Your task to perform on an android device: manage bookmarks in the chrome app Image 0: 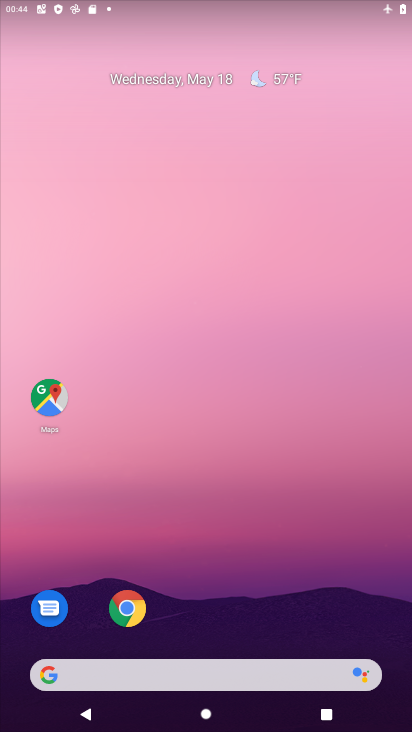
Step 0: click (129, 614)
Your task to perform on an android device: manage bookmarks in the chrome app Image 1: 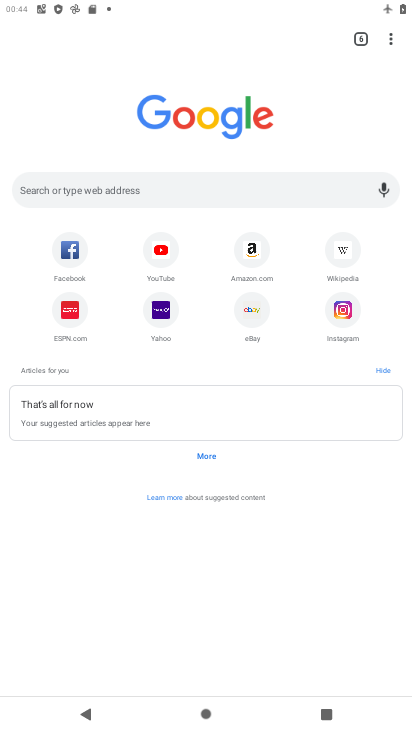
Step 1: click (391, 38)
Your task to perform on an android device: manage bookmarks in the chrome app Image 2: 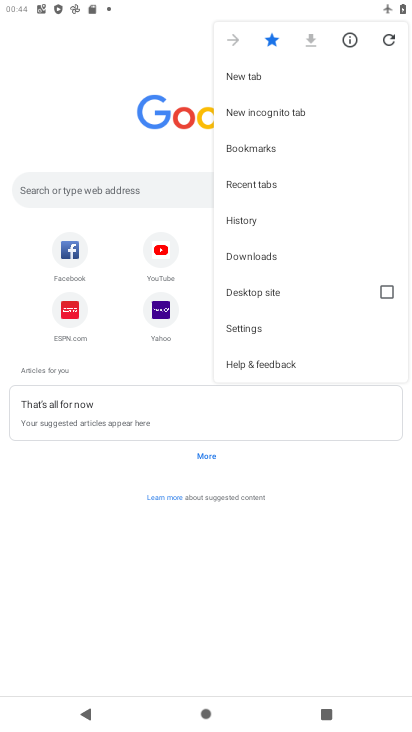
Step 2: click (273, 143)
Your task to perform on an android device: manage bookmarks in the chrome app Image 3: 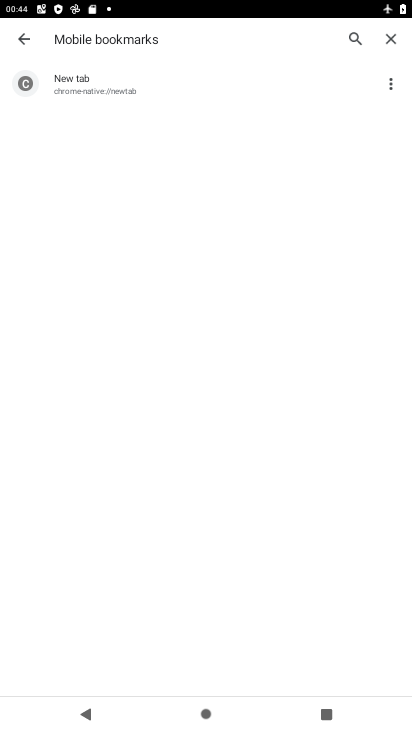
Step 3: click (391, 83)
Your task to perform on an android device: manage bookmarks in the chrome app Image 4: 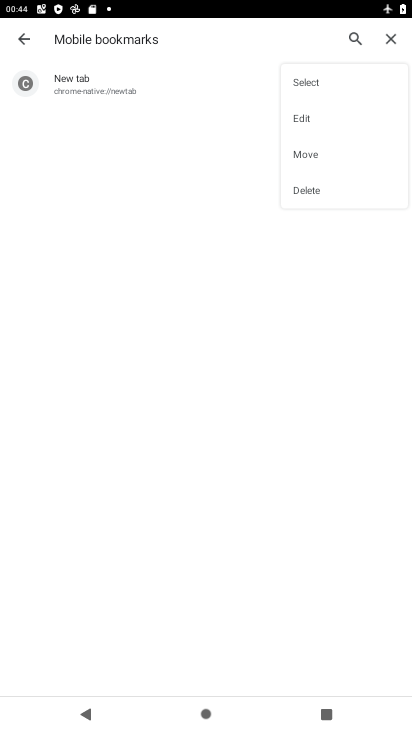
Step 4: click (303, 117)
Your task to perform on an android device: manage bookmarks in the chrome app Image 5: 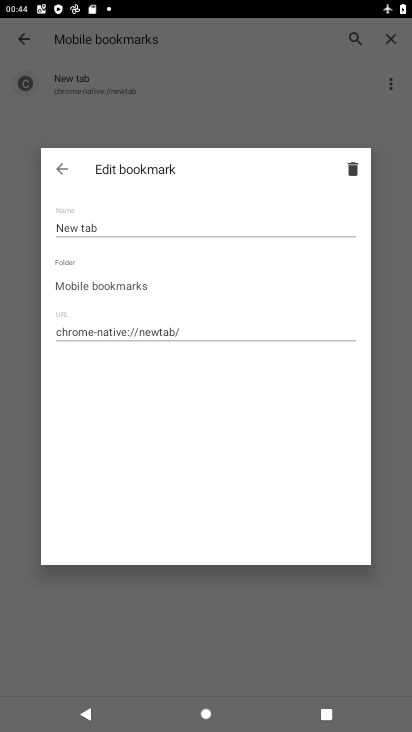
Step 5: task complete